Your task to perform on an android device: change the clock display to analog Image 0: 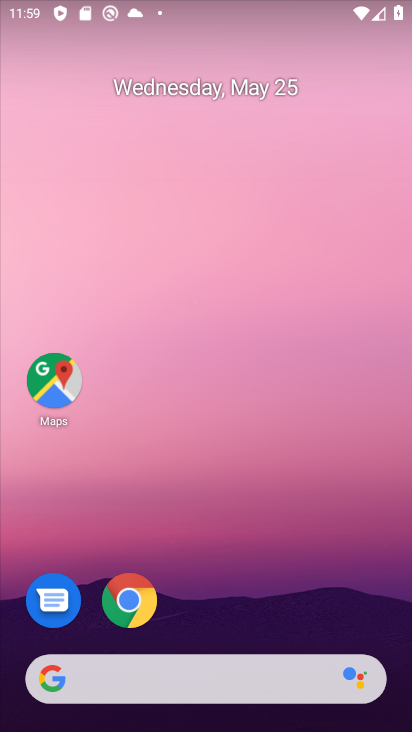
Step 0: drag from (293, 556) to (357, 112)
Your task to perform on an android device: change the clock display to analog Image 1: 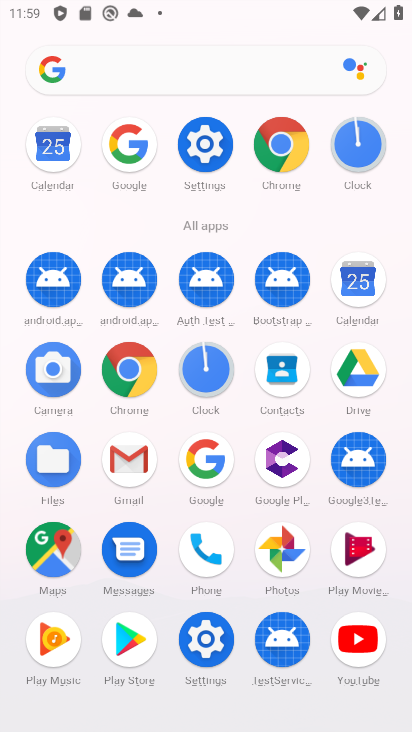
Step 1: click (208, 376)
Your task to perform on an android device: change the clock display to analog Image 2: 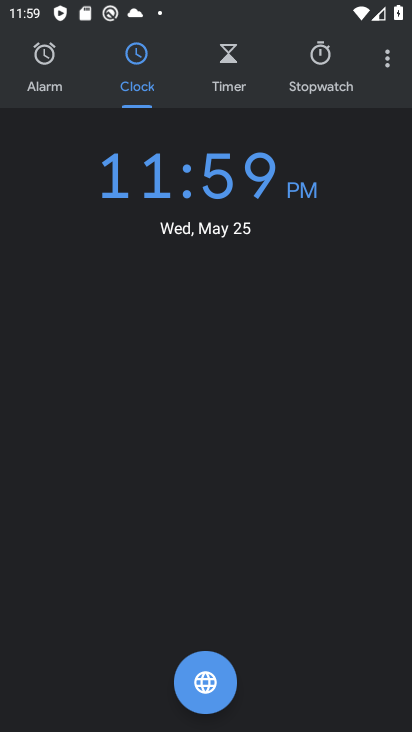
Step 2: click (384, 52)
Your task to perform on an android device: change the clock display to analog Image 3: 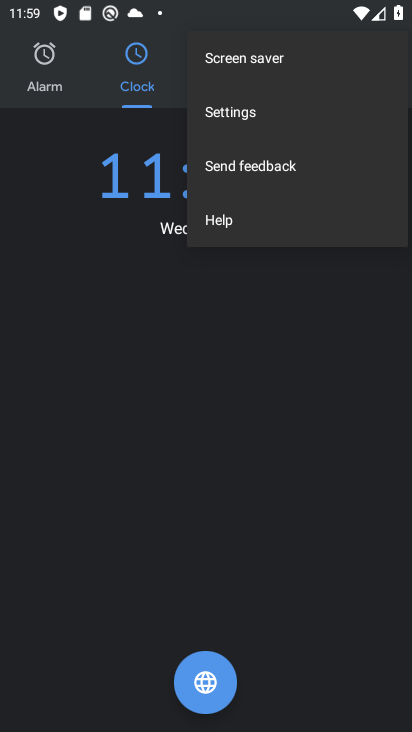
Step 3: click (241, 104)
Your task to perform on an android device: change the clock display to analog Image 4: 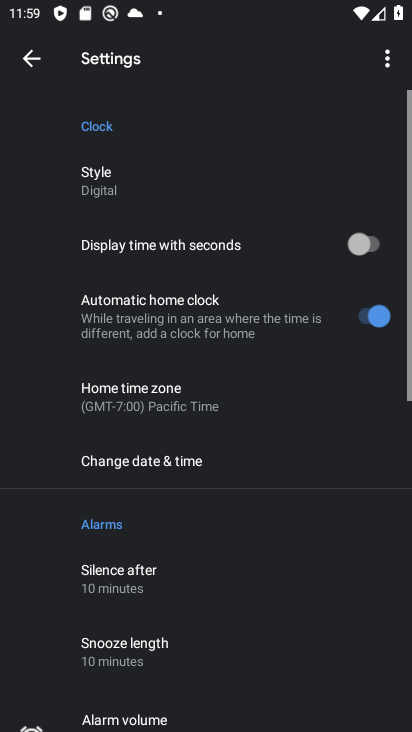
Step 4: click (206, 186)
Your task to perform on an android device: change the clock display to analog Image 5: 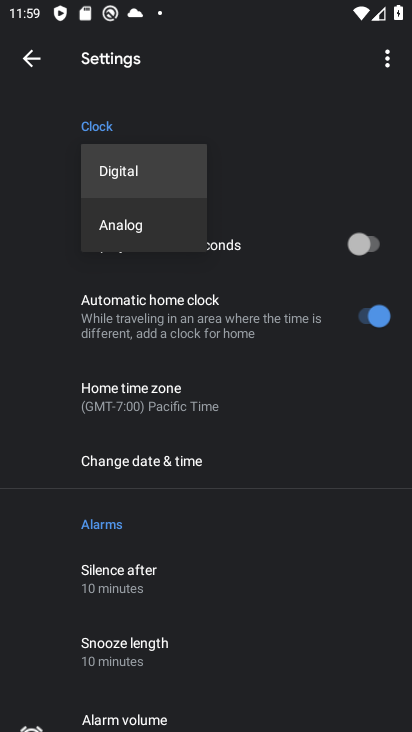
Step 5: click (173, 230)
Your task to perform on an android device: change the clock display to analog Image 6: 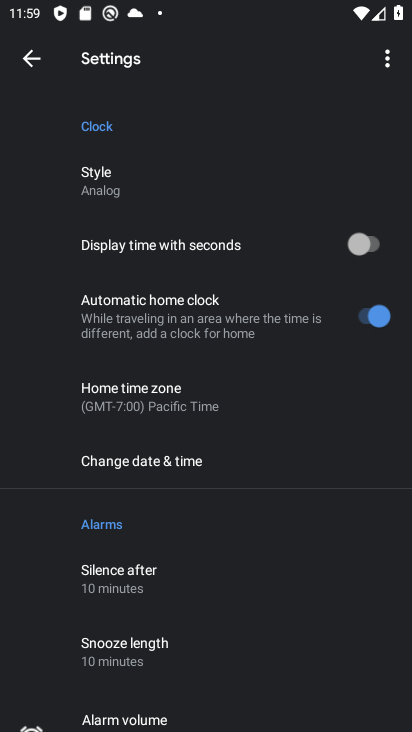
Step 6: task complete